Your task to perform on an android device: change timer sound Image 0: 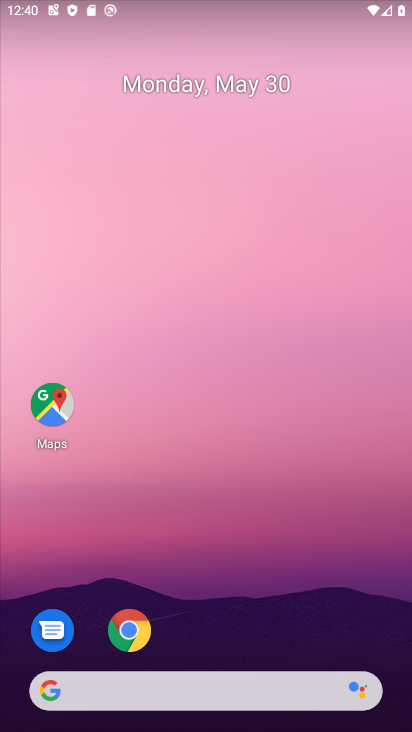
Step 0: drag from (181, 637) to (300, 54)
Your task to perform on an android device: change timer sound Image 1: 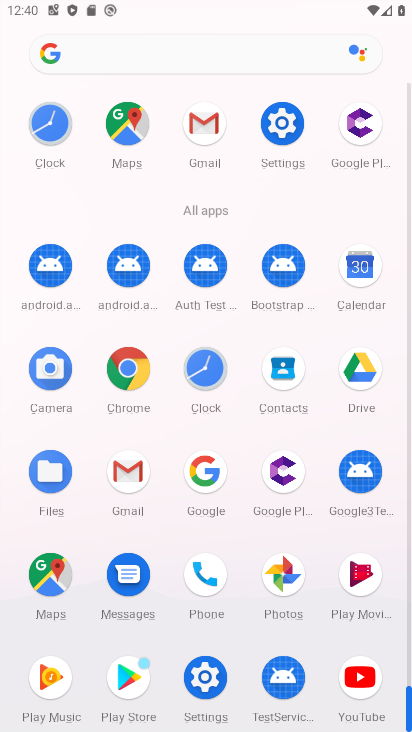
Step 1: click (218, 367)
Your task to perform on an android device: change timer sound Image 2: 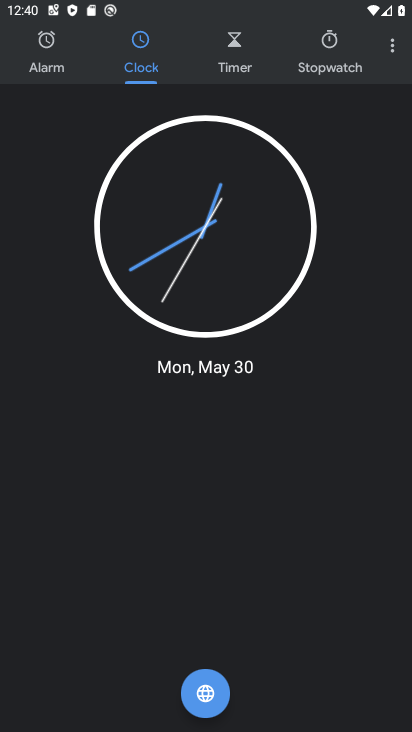
Step 2: click (398, 47)
Your task to perform on an android device: change timer sound Image 3: 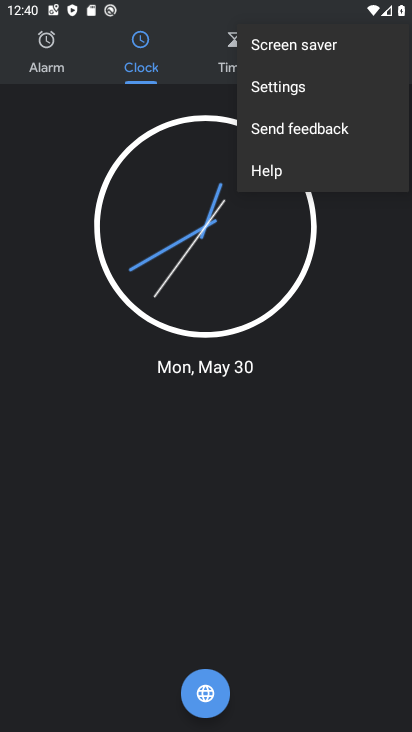
Step 3: click (326, 89)
Your task to perform on an android device: change timer sound Image 4: 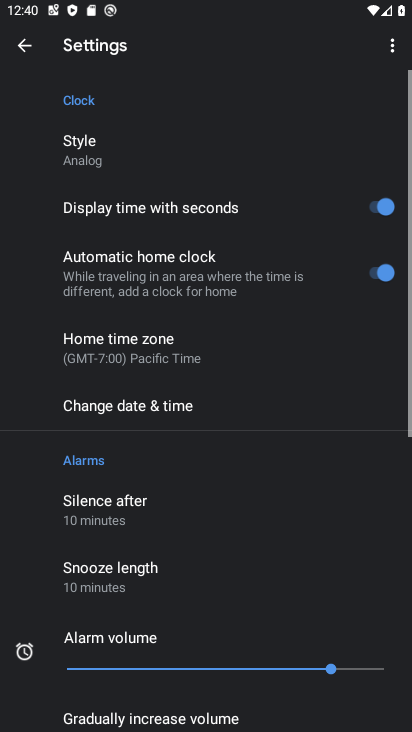
Step 4: drag from (160, 530) to (226, 238)
Your task to perform on an android device: change timer sound Image 5: 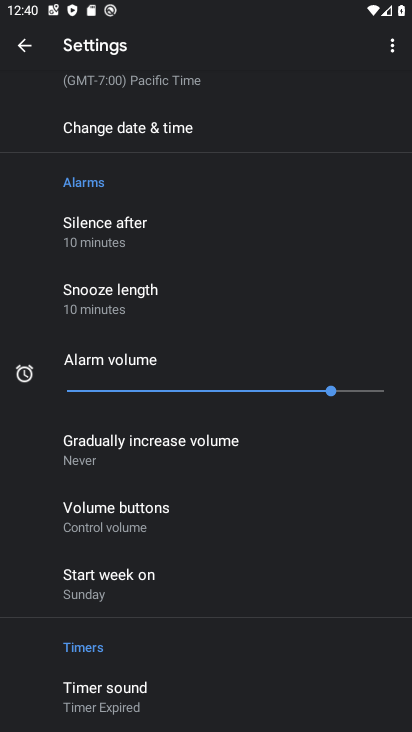
Step 5: drag from (197, 602) to (267, 293)
Your task to perform on an android device: change timer sound Image 6: 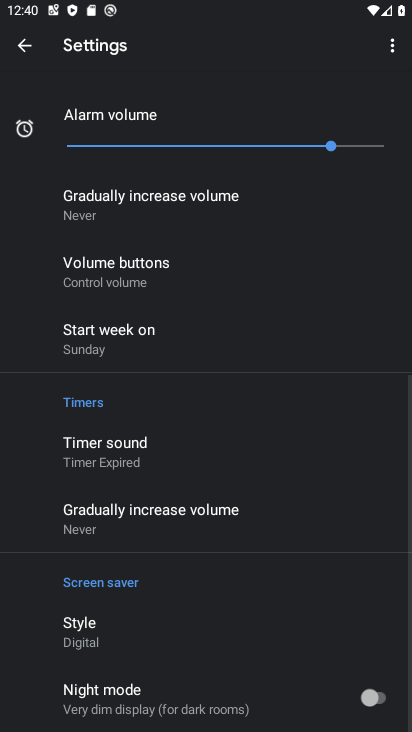
Step 6: click (209, 438)
Your task to perform on an android device: change timer sound Image 7: 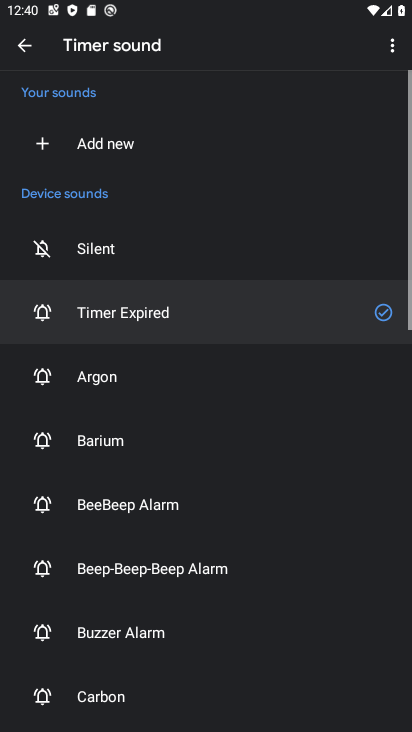
Step 7: click (201, 642)
Your task to perform on an android device: change timer sound Image 8: 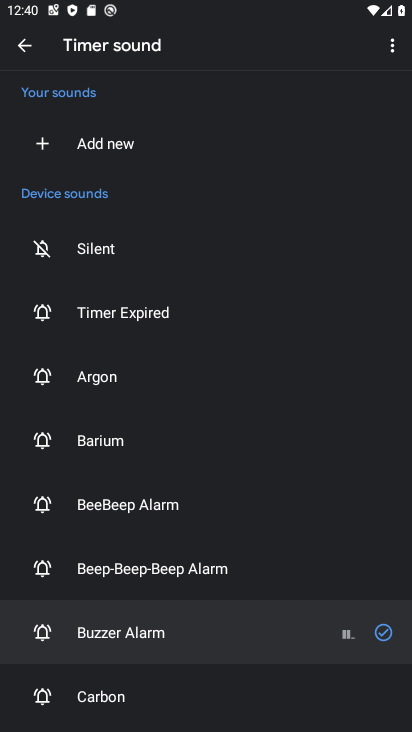
Step 8: task complete